Your task to perform on an android device: delete the emails in spam in the gmail app Image 0: 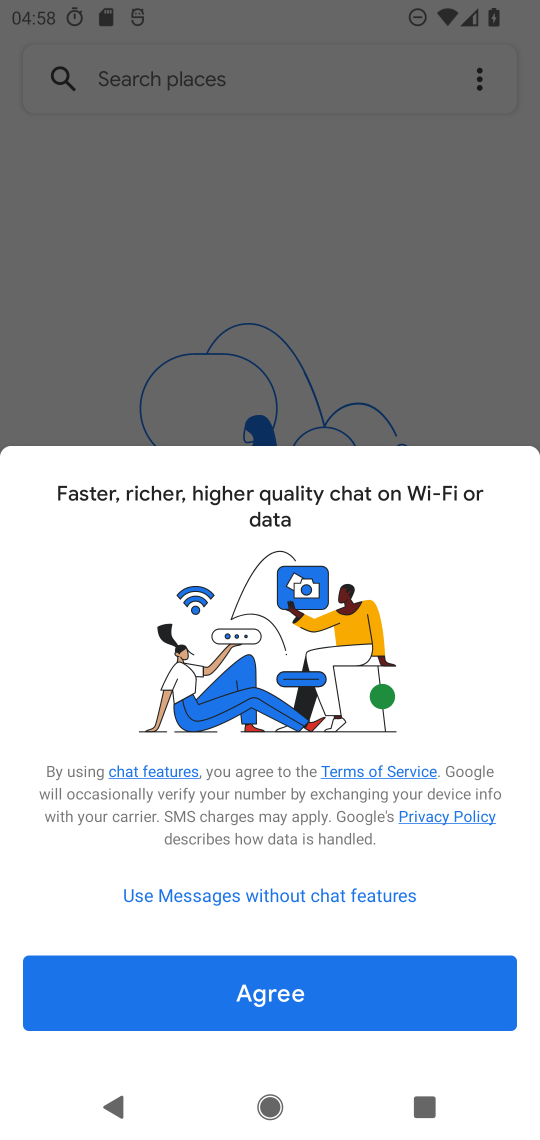
Step 0: press home button
Your task to perform on an android device: delete the emails in spam in the gmail app Image 1: 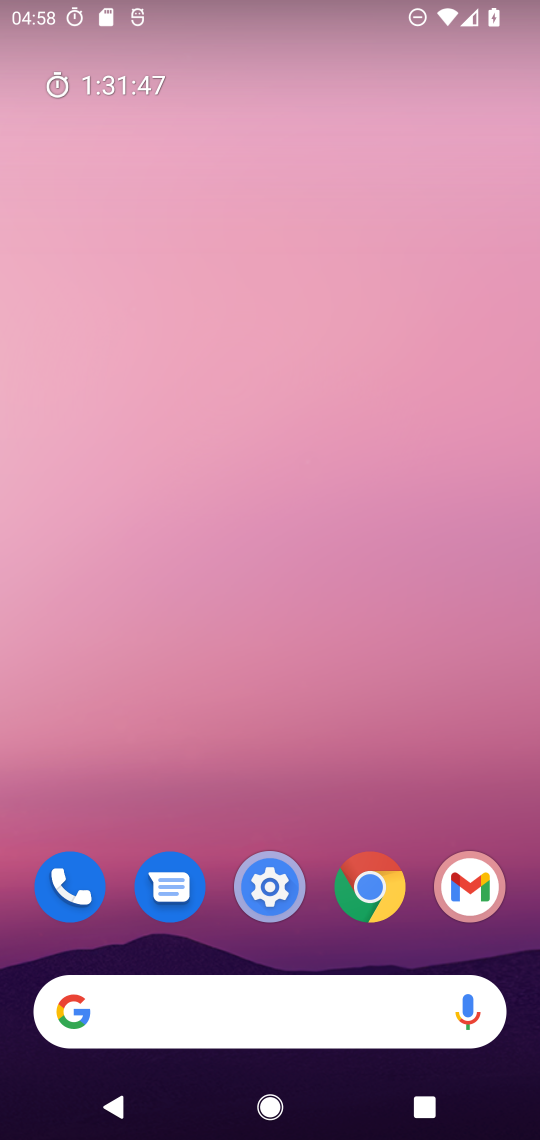
Step 1: drag from (386, 776) to (376, 228)
Your task to perform on an android device: delete the emails in spam in the gmail app Image 2: 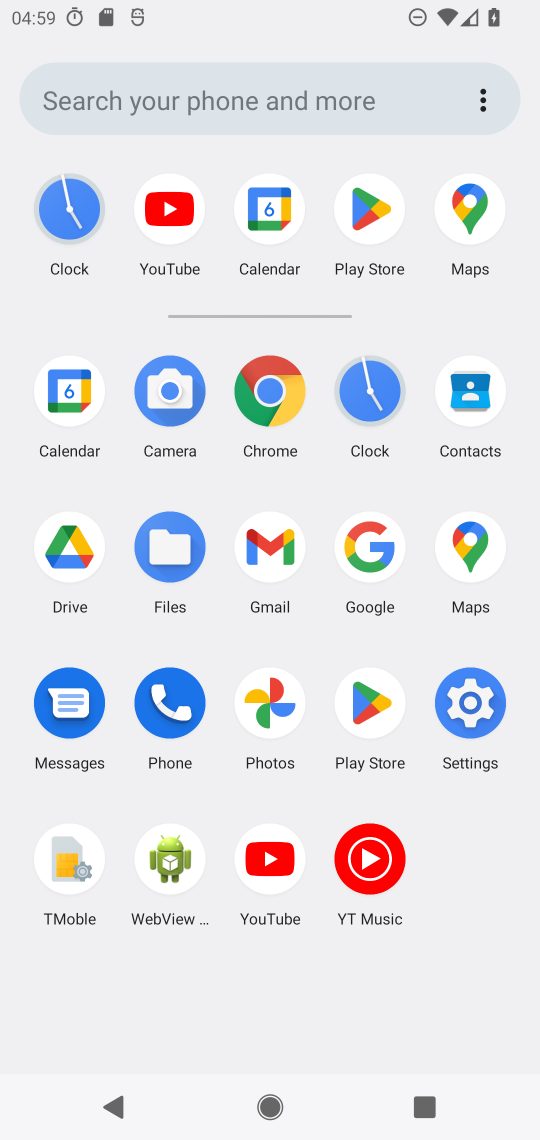
Step 2: click (266, 556)
Your task to perform on an android device: delete the emails in spam in the gmail app Image 3: 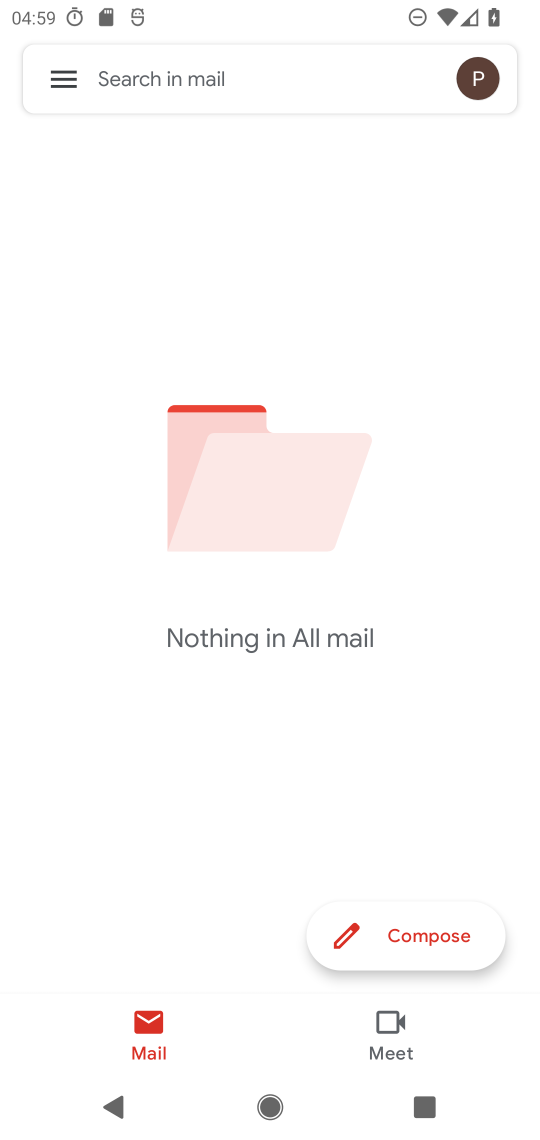
Step 3: click (61, 77)
Your task to perform on an android device: delete the emails in spam in the gmail app Image 4: 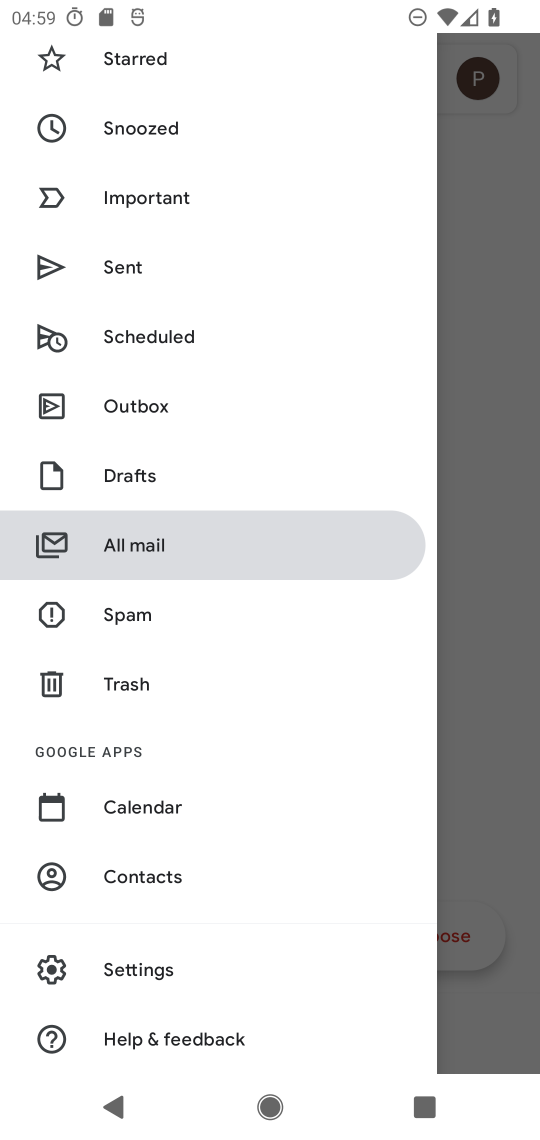
Step 4: click (163, 618)
Your task to perform on an android device: delete the emails in spam in the gmail app Image 5: 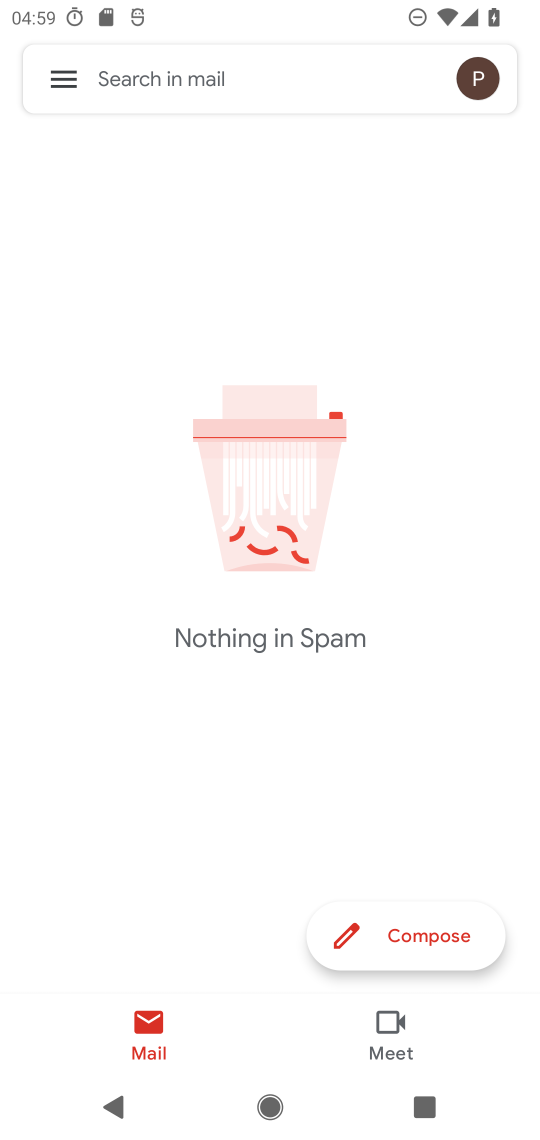
Step 5: task complete